Your task to perform on an android device: turn on sleep mode Image 0: 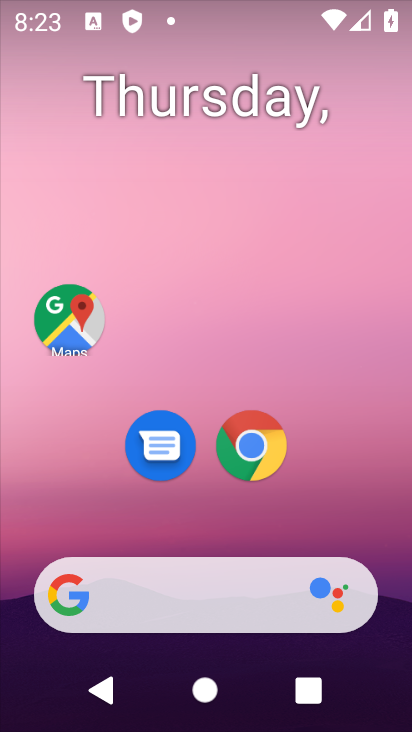
Step 0: drag from (4, 691) to (318, 165)
Your task to perform on an android device: turn on sleep mode Image 1: 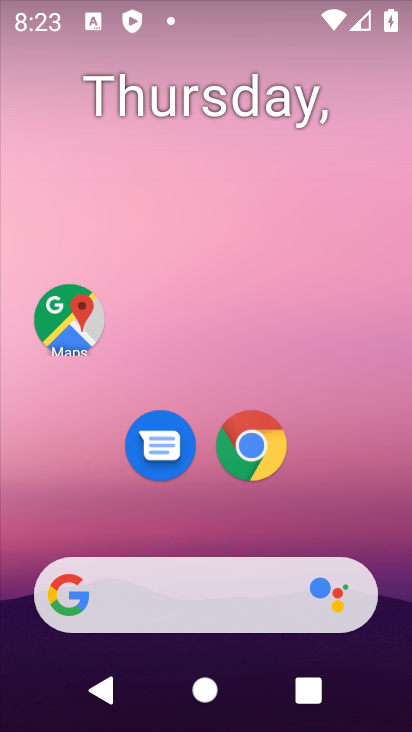
Step 1: drag from (21, 670) to (411, 194)
Your task to perform on an android device: turn on sleep mode Image 2: 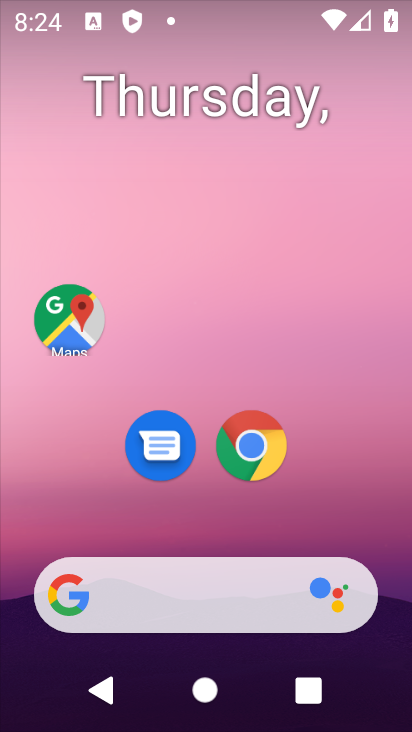
Step 2: drag from (278, 315) to (398, 394)
Your task to perform on an android device: turn on sleep mode Image 3: 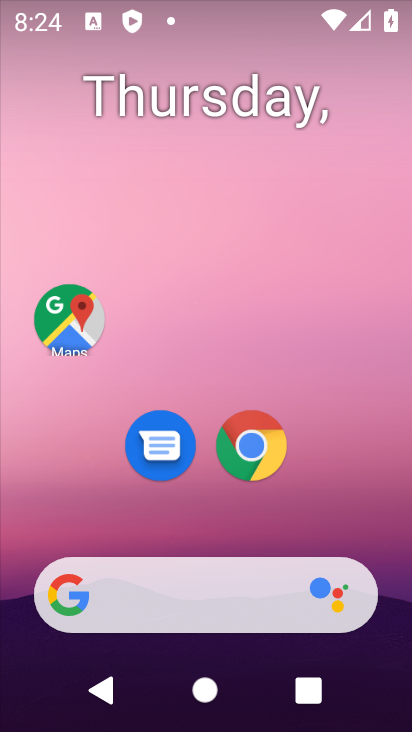
Step 3: drag from (89, 550) to (408, 312)
Your task to perform on an android device: turn on sleep mode Image 4: 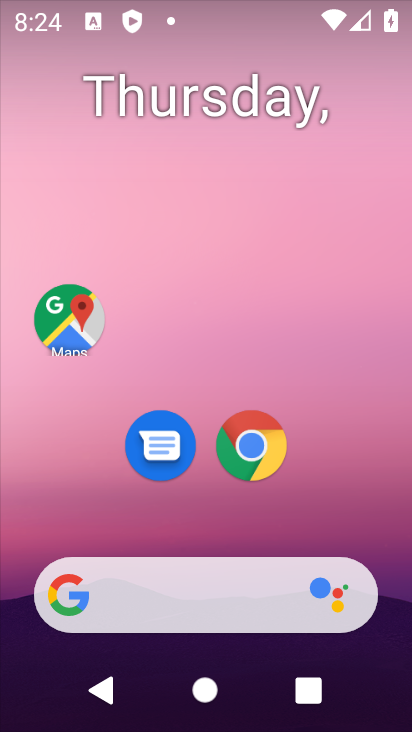
Step 4: click (323, 377)
Your task to perform on an android device: turn on sleep mode Image 5: 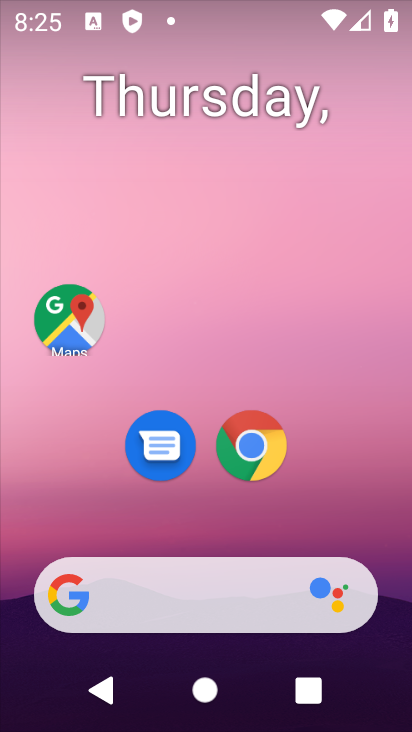
Step 5: drag from (17, 657) to (364, 122)
Your task to perform on an android device: turn on sleep mode Image 6: 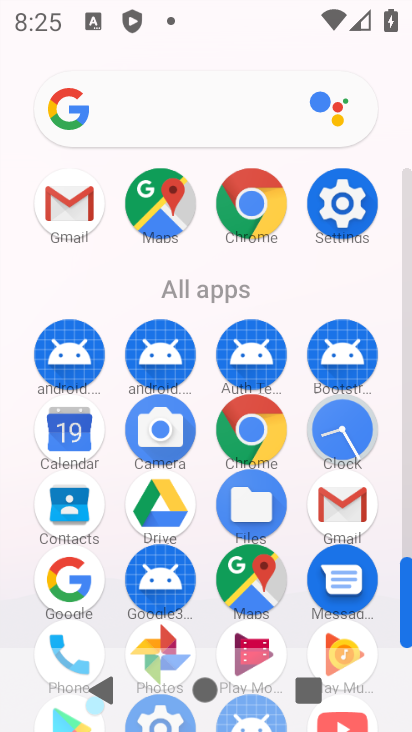
Step 6: click (326, 202)
Your task to perform on an android device: turn on sleep mode Image 7: 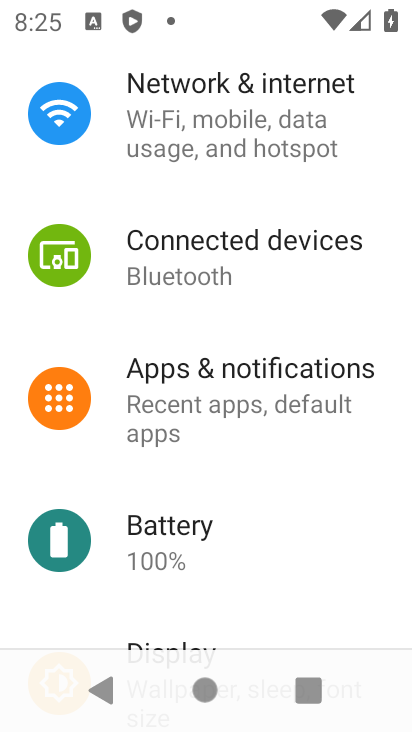
Step 7: drag from (125, 541) to (301, 112)
Your task to perform on an android device: turn on sleep mode Image 8: 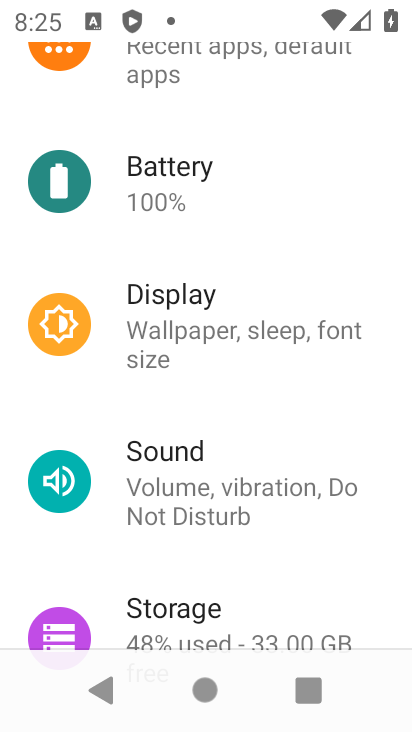
Step 8: click (221, 338)
Your task to perform on an android device: turn on sleep mode Image 9: 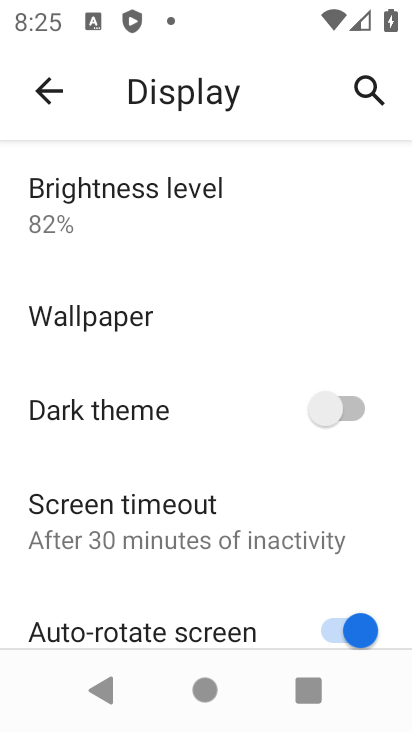
Step 9: task complete